Your task to perform on an android device: toggle location history Image 0: 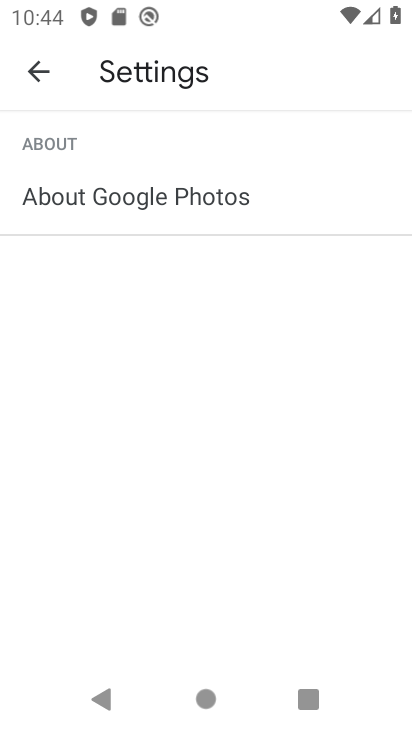
Step 0: press home button
Your task to perform on an android device: toggle location history Image 1: 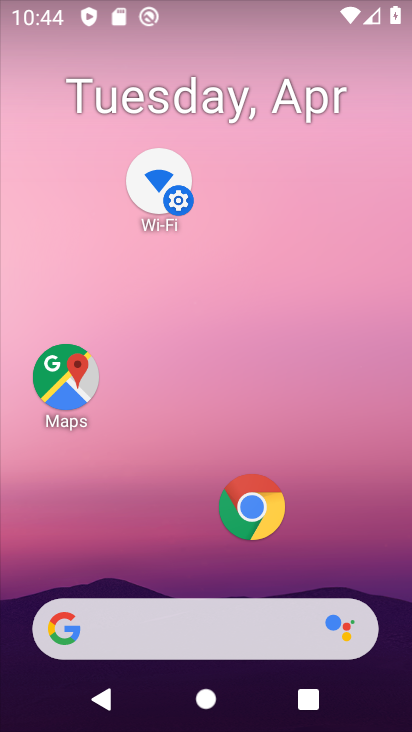
Step 1: drag from (73, 531) to (196, 284)
Your task to perform on an android device: toggle location history Image 2: 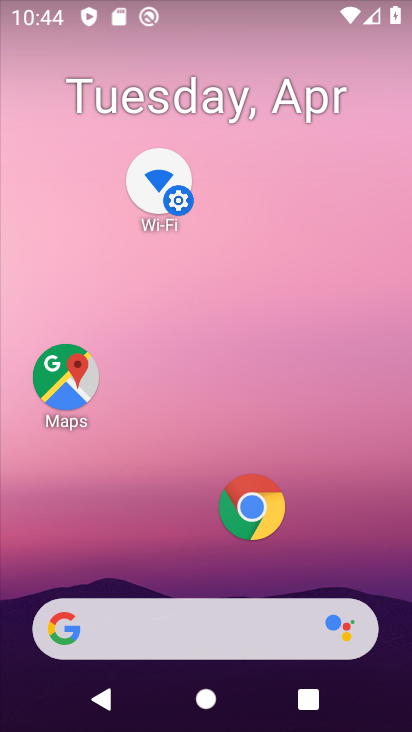
Step 2: drag from (96, 469) to (226, 251)
Your task to perform on an android device: toggle location history Image 3: 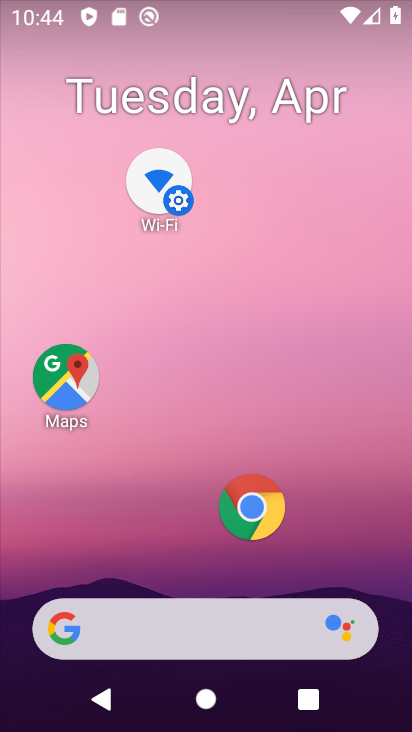
Step 3: drag from (52, 604) to (289, 226)
Your task to perform on an android device: toggle location history Image 4: 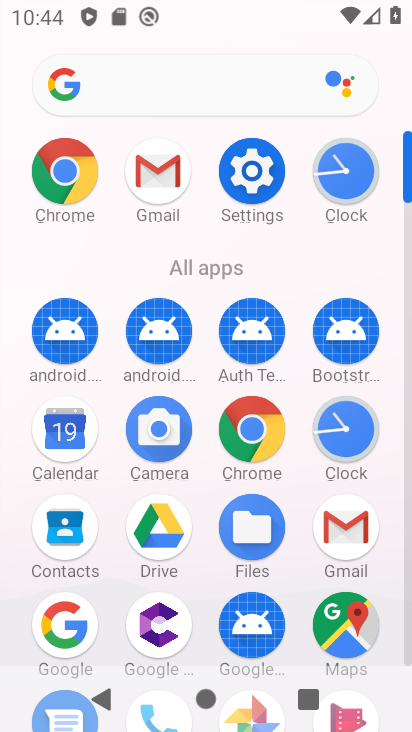
Step 4: click (278, 180)
Your task to perform on an android device: toggle location history Image 5: 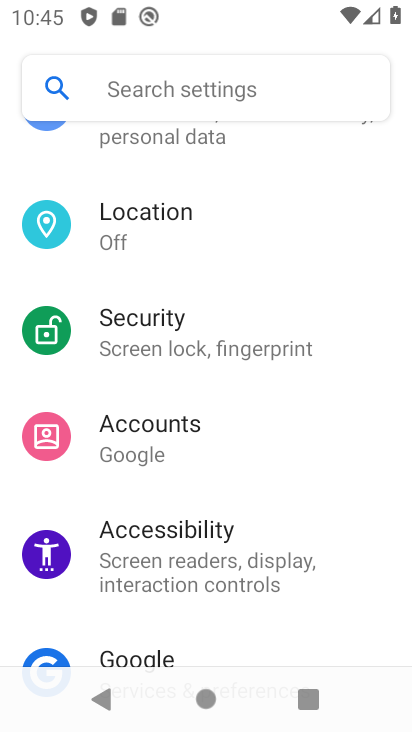
Step 5: click (212, 224)
Your task to perform on an android device: toggle location history Image 6: 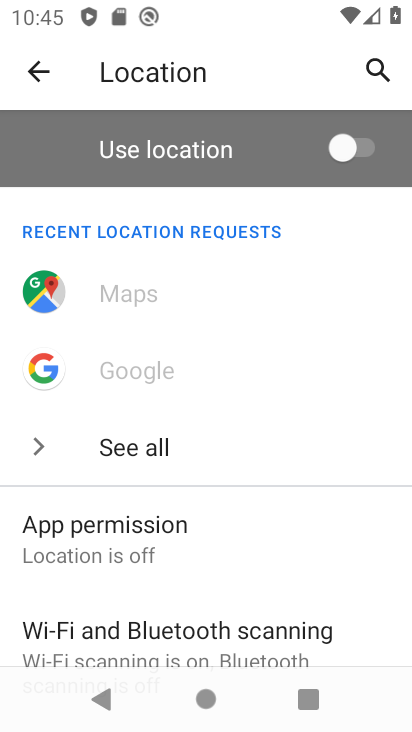
Step 6: drag from (75, 622) to (158, 270)
Your task to perform on an android device: toggle location history Image 7: 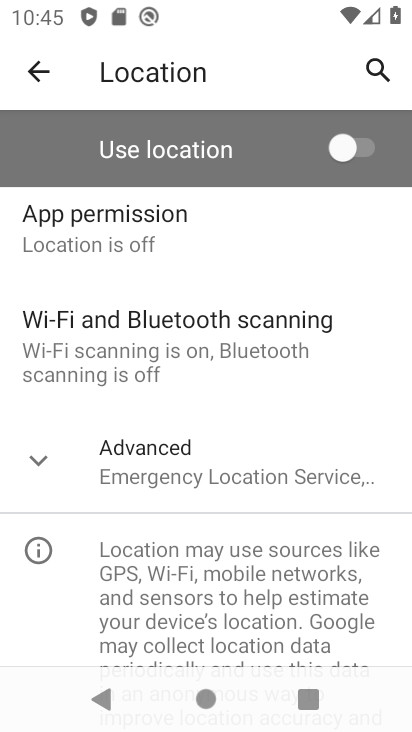
Step 7: click (164, 474)
Your task to perform on an android device: toggle location history Image 8: 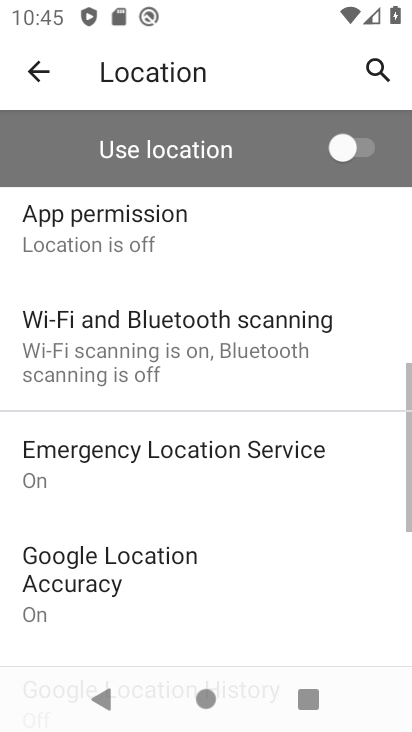
Step 8: drag from (129, 574) to (256, 198)
Your task to perform on an android device: toggle location history Image 9: 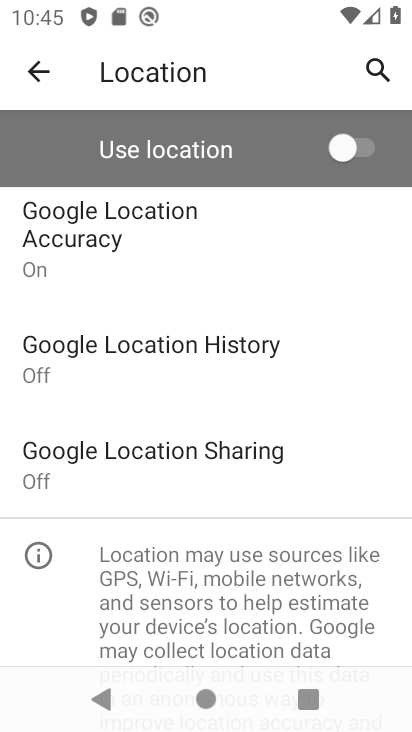
Step 9: click (174, 347)
Your task to perform on an android device: toggle location history Image 10: 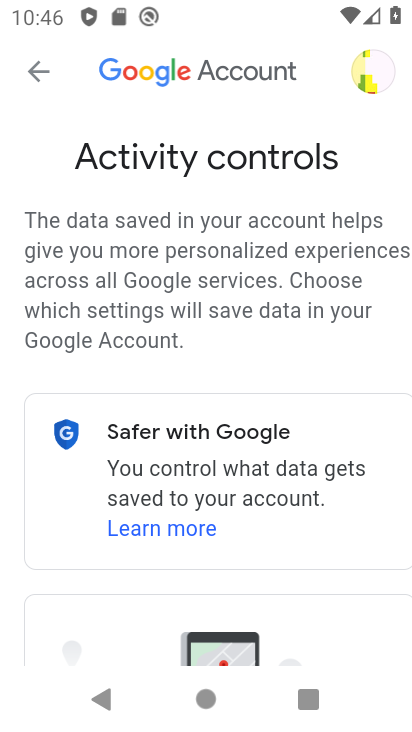
Step 10: drag from (236, 597) to (290, 225)
Your task to perform on an android device: toggle location history Image 11: 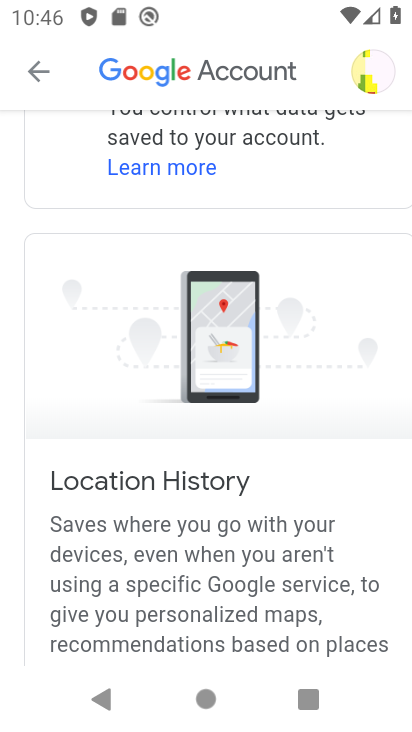
Step 11: drag from (191, 622) to (312, 178)
Your task to perform on an android device: toggle location history Image 12: 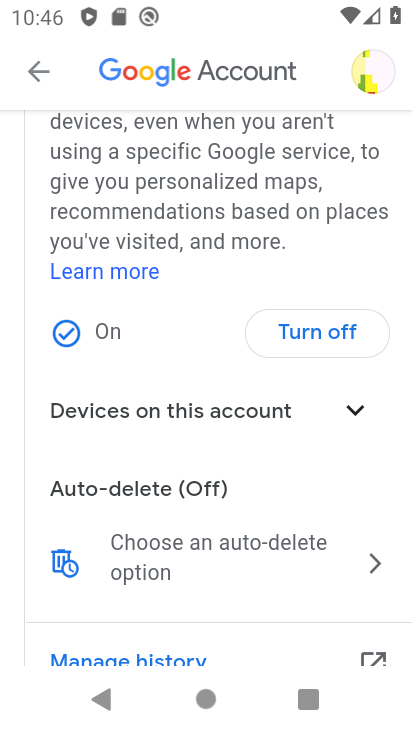
Step 12: click (296, 341)
Your task to perform on an android device: toggle location history Image 13: 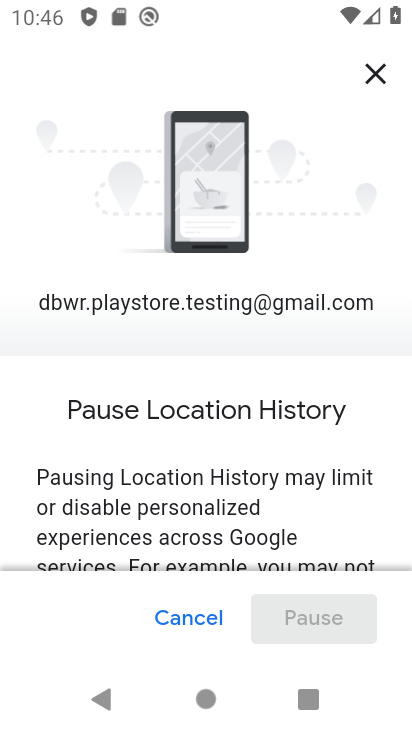
Step 13: drag from (202, 489) to (239, 259)
Your task to perform on an android device: toggle location history Image 14: 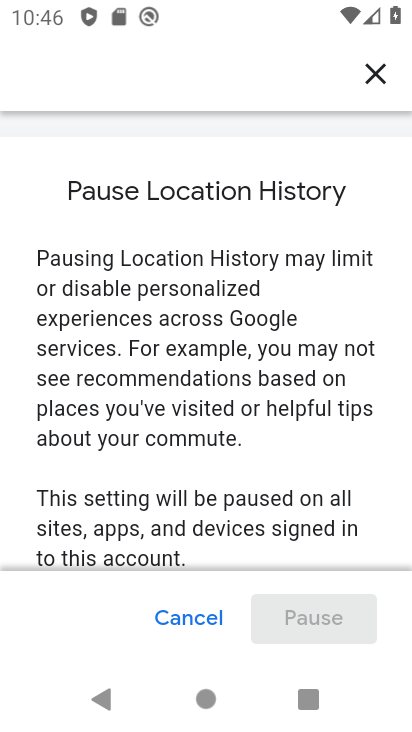
Step 14: drag from (234, 420) to (253, 275)
Your task to perform on an android device: toggle location history Image 15: 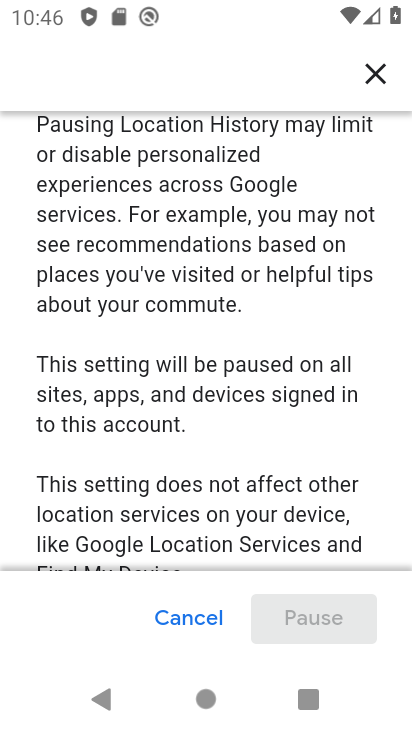
Step 15: drag from (148, 547) to (258, 177)
Your task to perform on an android device: toggle location history Image 16: 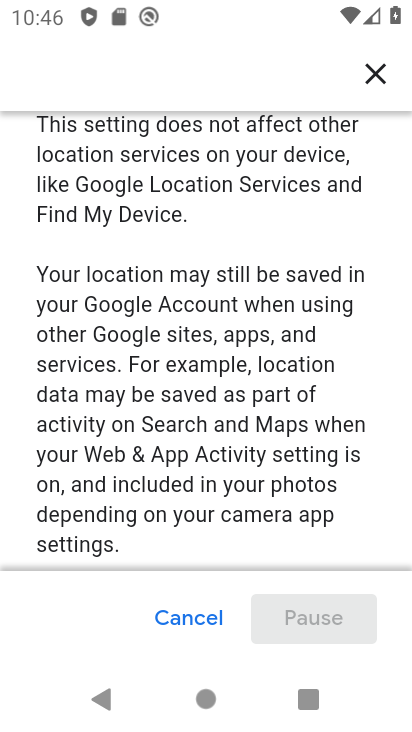
Step 16: drag from (162, 496) to (286, 206)
Your task to perform on an android device: toggle location history Image 17: 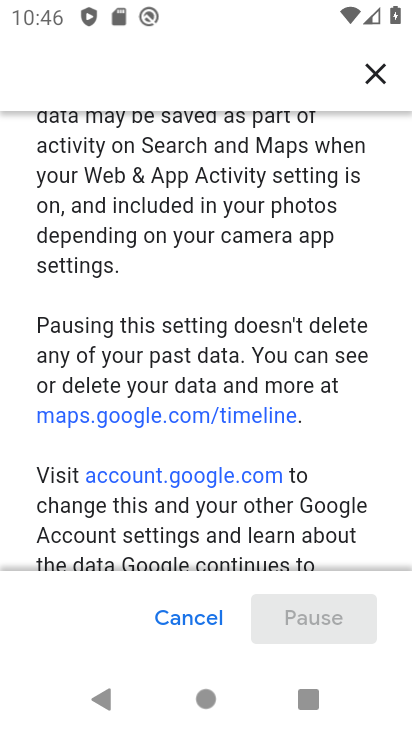
Step 17: drag from (204, 501) to (277, 265)
Your task to perform on an android device: toggle location history Image 18: 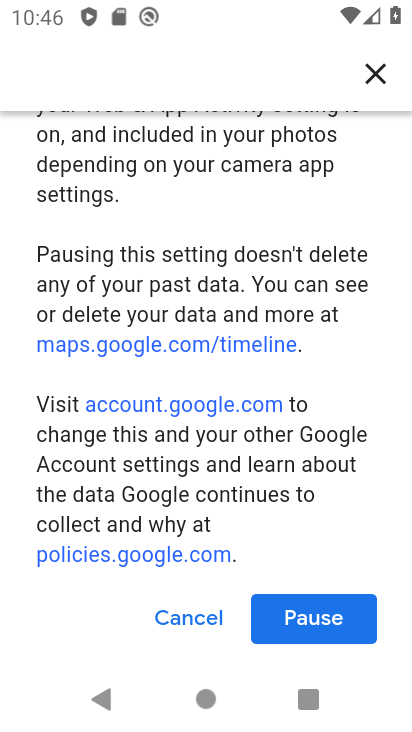
Step 18: click (337, 628)
Your task to perform on an android device: toggle location history Image 19: 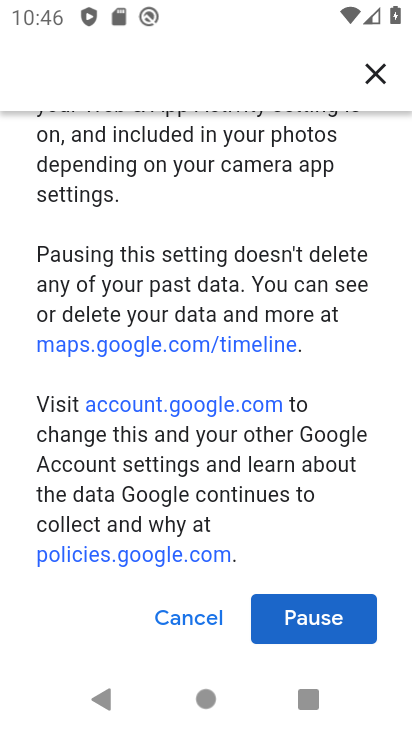
Step 19: task complete